Your task to perform on an android device: Open privacy settings Image 0: 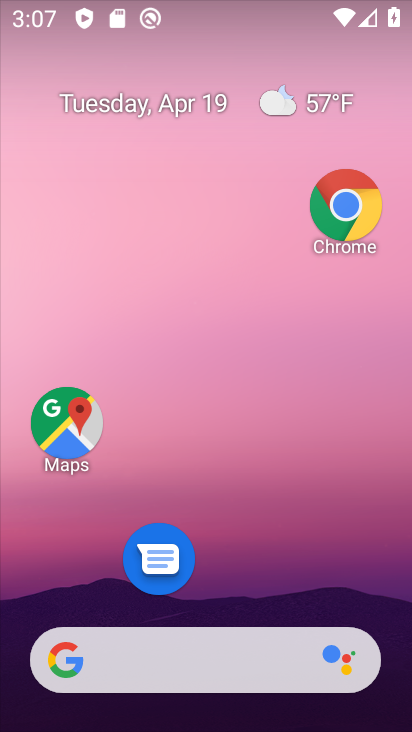
Step 0: drag from (169, 589) to (269, 195)
Your task to perform on an android device: Open privacy settings Image 1: 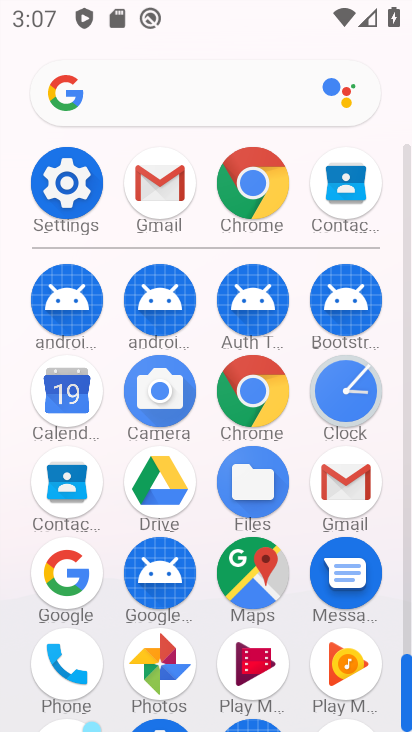
Step 1: drag from (196, 648) to (209, 327)
Your task to perform on an android device: Open privacy settings Image 2: 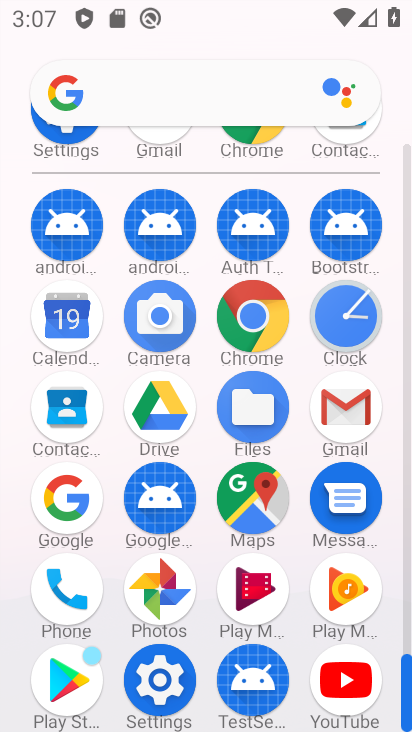
Step 2: click (164, 669)
Your task to perform on an android device: Open privacy settings Image 3: 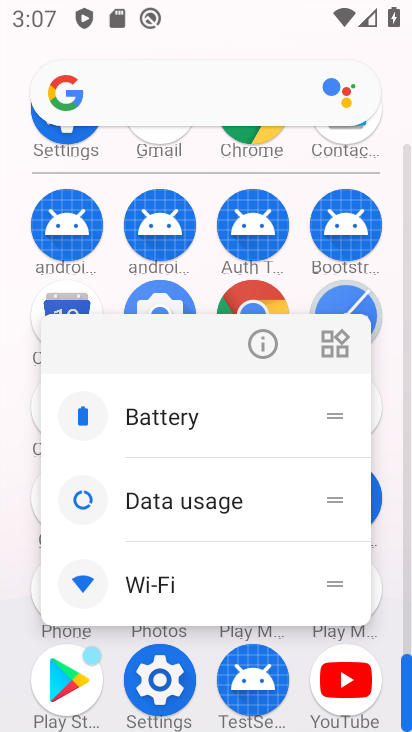
Step 3: click (272, 337)
Your task to perform on an android device: Open privacy settings Image 4: 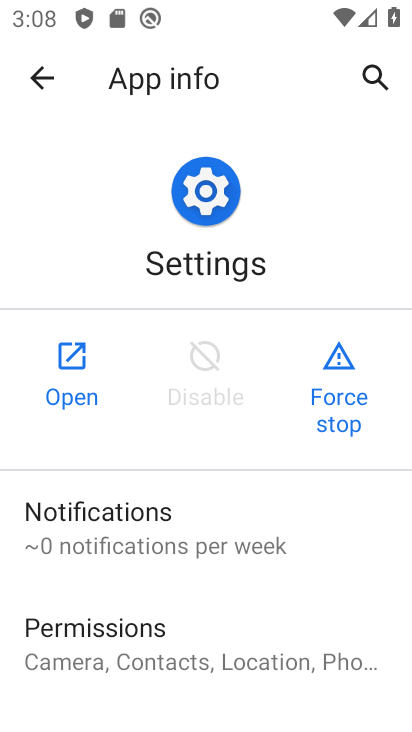
Step 4: click (52, 344)
Your task to perform on an android device: Open privacy settings Image 5: 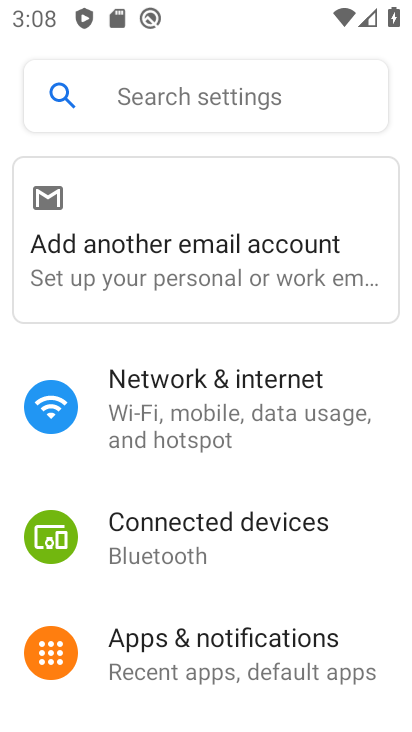
Step 5: drag from (213, 561) to (251, 207)
Your task to perform on an android device: Open privacy settings Image 6: 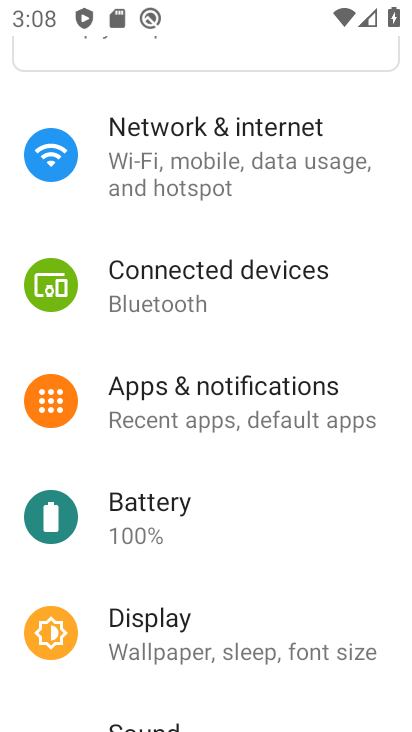
Step 6: drag from (202, 549) to (204, 367)
Your task to perform on an android device: Open privacy settings Image 7: 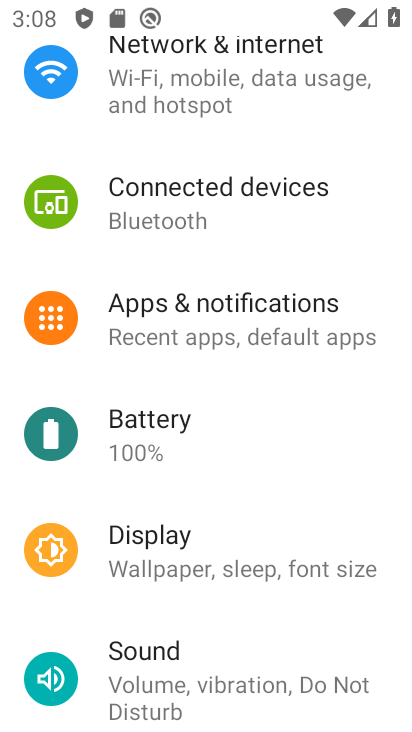
Step 7: drag from (160, 544) to (181, 285)
Your task to perform on an android device: Open privacy settings Image 8: 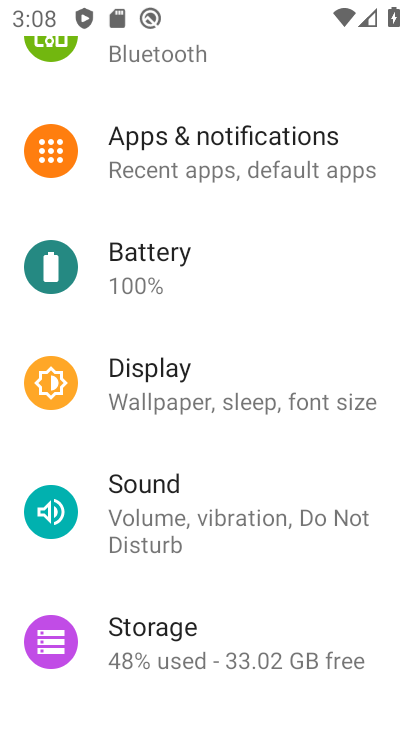
Step 8: drag from (171, 606) to (175, 357)
Your task to perform on an android device: Open privacy settings Image 9: 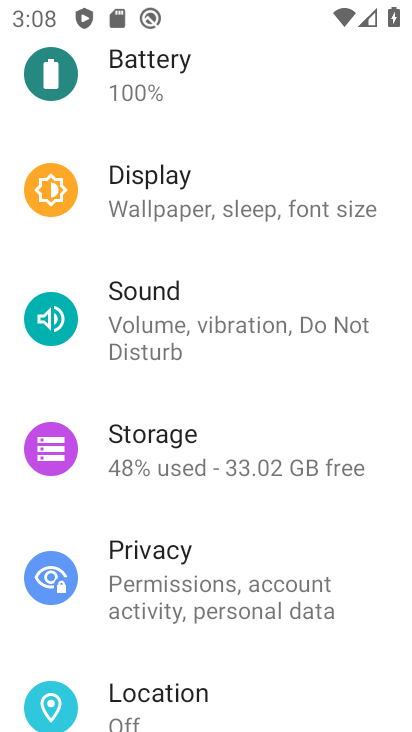
Step 9: click (172, 563)
Your task to perform on an android device: Open privacy settings Image 10: 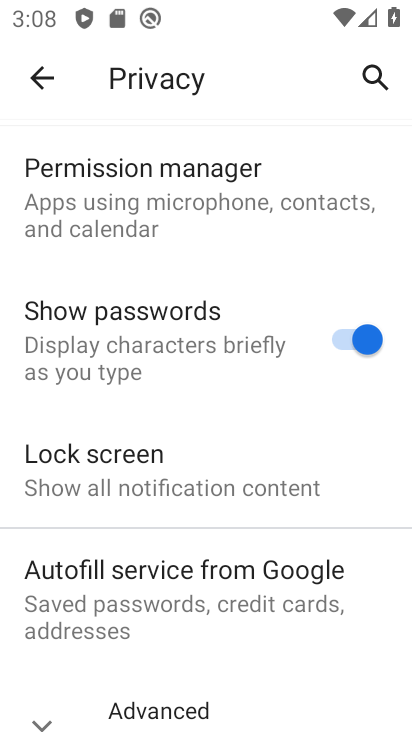
Step 10: task complete